Your task to perform on an android device: Go to Google Image 0: 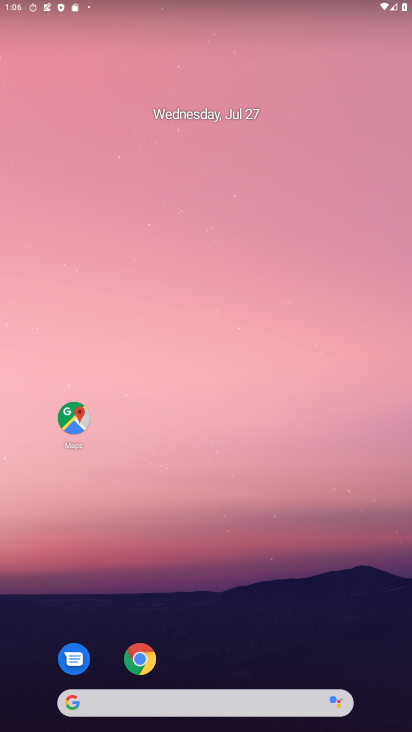
Step 0: drag from (223, 645) to (243, 51)
Your task to perform on an android device: Go to Google Image 1: 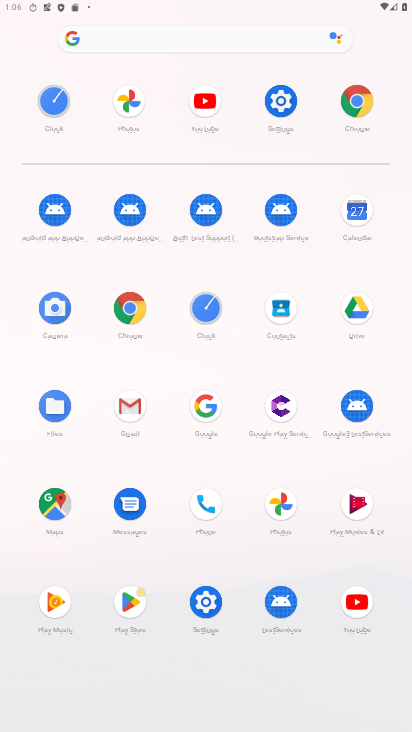
Step 1: click (199, 399)
Your task to perform on an android device: Go to Google Image 2: 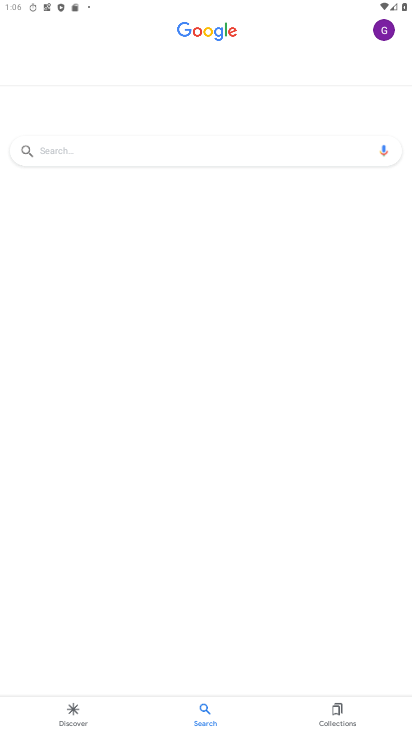
Step 2: click (67, 709)
Your task to perform on an android device: Go to Google Image 3: 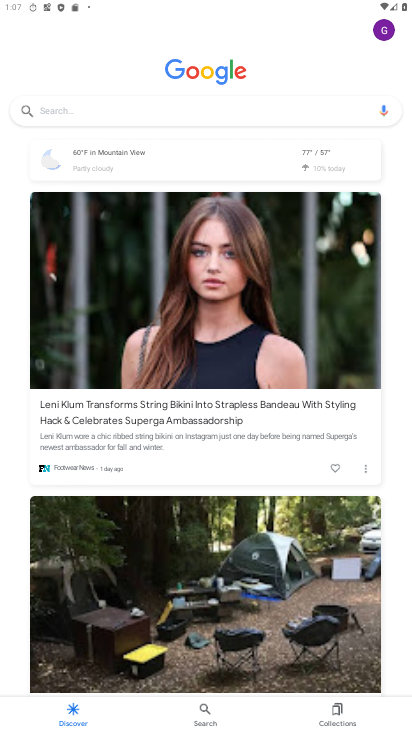
Step 3: task complete